Your task to perform on an android device: check data usage Image 0: 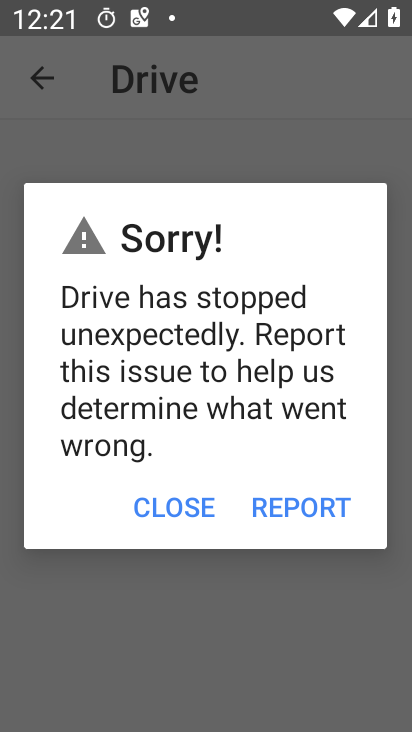
Step 0: press home button
Your task to perform on an android device: check data usage Image 1: 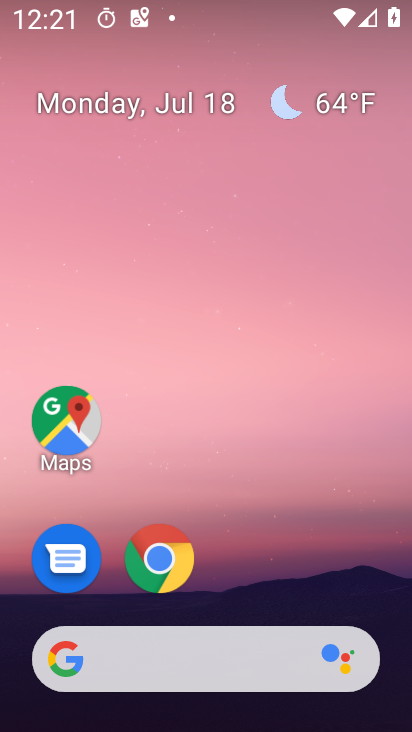
Step 1: drag from (334, 578) to (368, 64)
Your task to perform on an android device: check data usage Image 2: 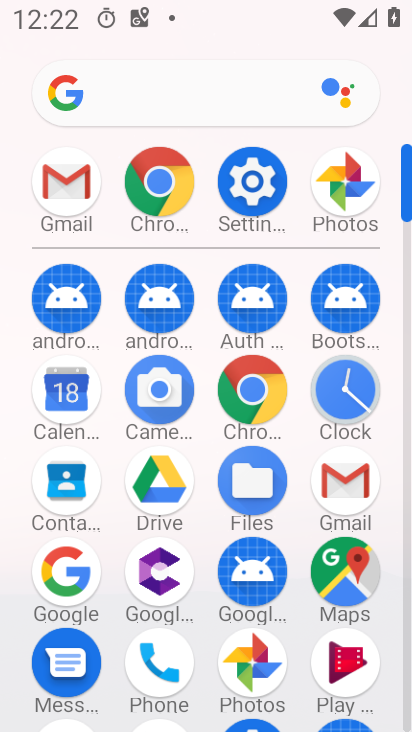
Step 2: click (236, 214)
Your task to perform on an android device: check data usage Image 3: 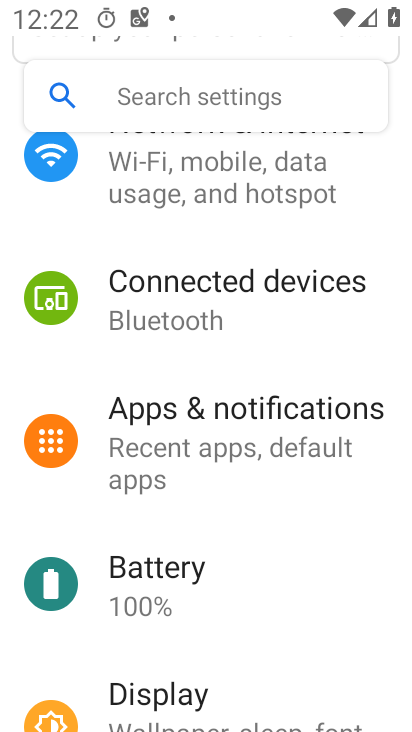
Step 3: drag from (359, 592) to (357, 491)
Your task to perform on an android device: check data usage Image 4: 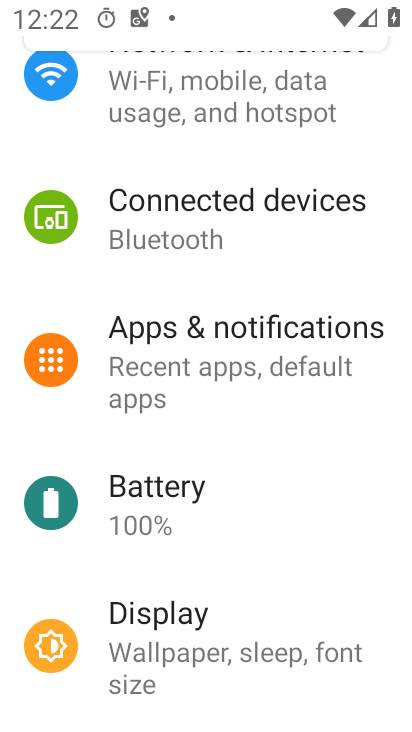
Step 4: drag from (348, 551) to (348, 458)
Your task to perform on an android device: check data usage Image 5: 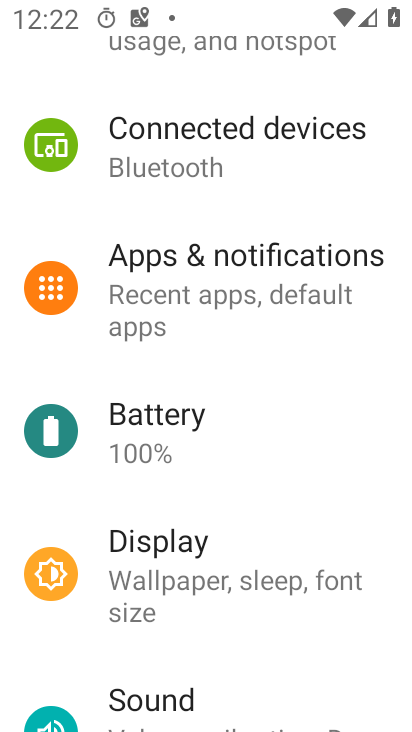
Step 5: drag from (345, 633) to (357, 438)
Your task to perform on an android device: check data usage Image 6: 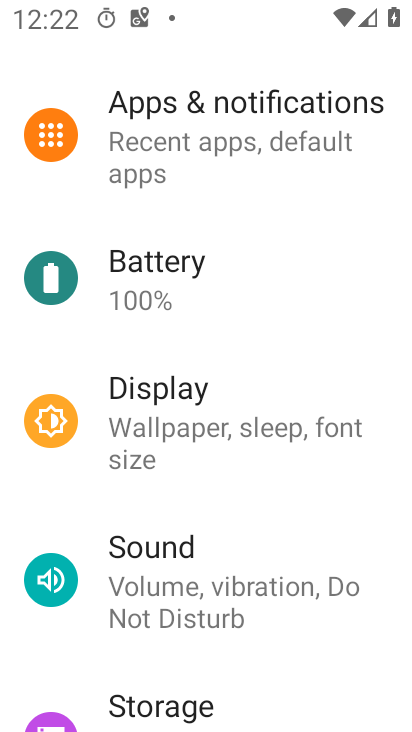
Step 6: drag from (336, 503) to (342, 364)
Your task to perform on an android device: check data usage Image 7: 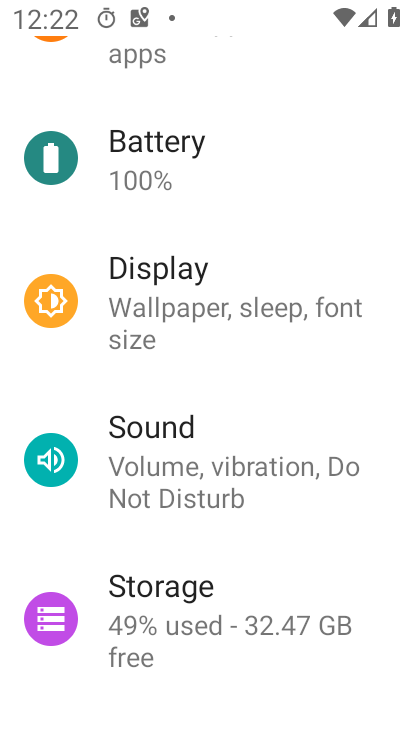
Step 7: drag from (345, 526) to (338, 257)
Your task to perform on an android device: check data usage Image 8: 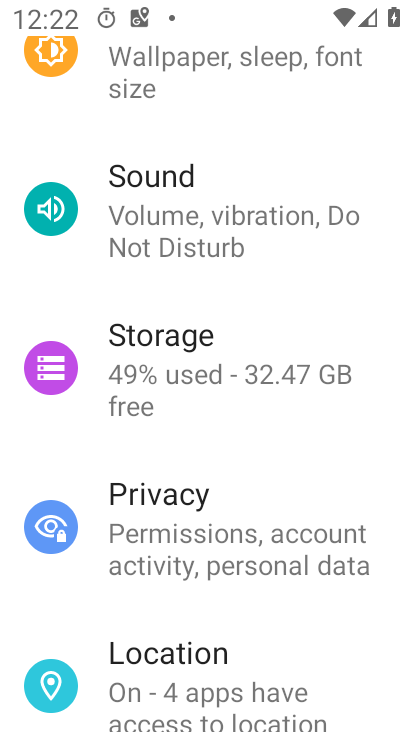
Step 8: drag from (346, 288) to (360, 450)
Your task to perform on an android device: check data usage Image 9: 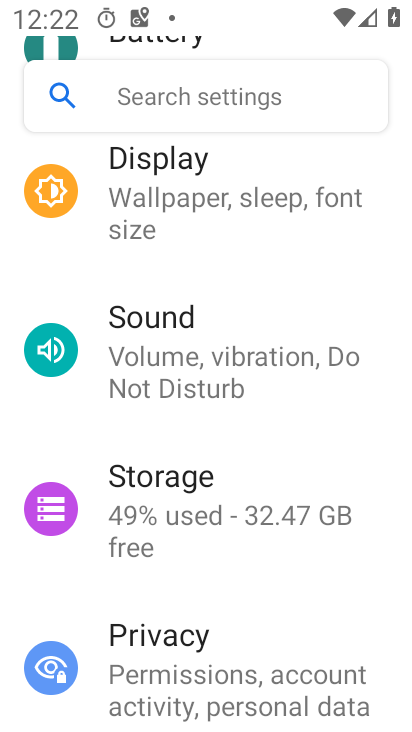
Step 9: drag from (361, 265) to (370, 380)
Your task to perform on an android device: check data usage Image 10: 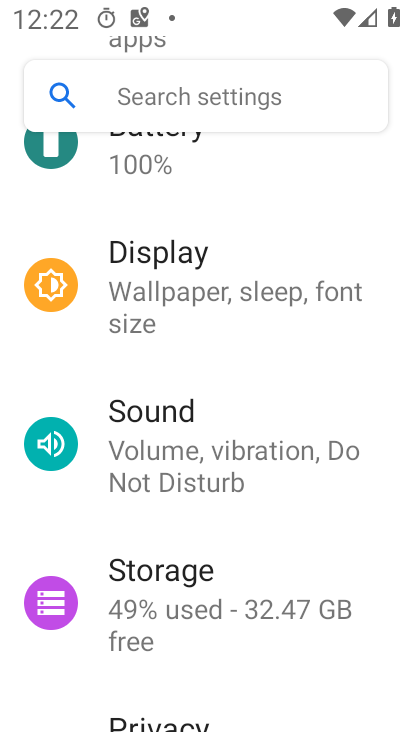
Step 10: drag from (366, 160) to (373, 333)
Your task to perform on an android device: check data usage Image 11: 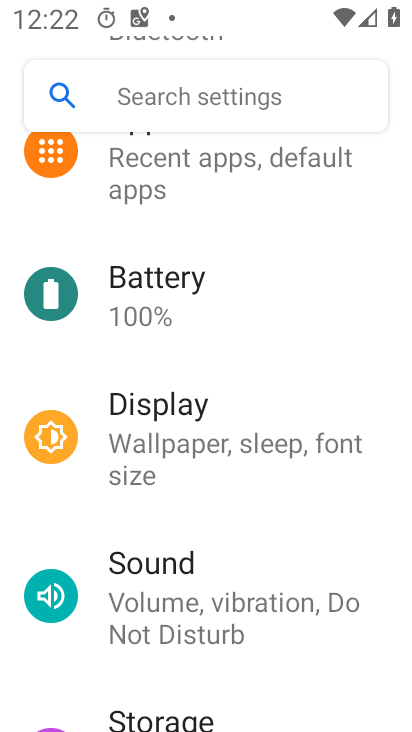
Step 11: drag from (374, 222) to (370, 392)
Your task to perform on an android device: check data usage Image 12: 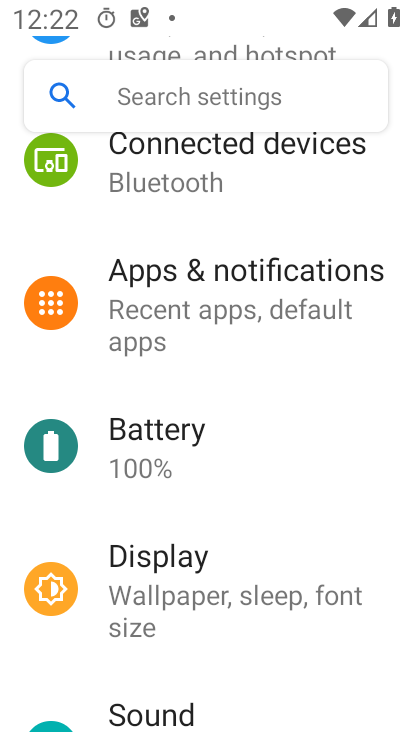
Step 12: drag from (365, 203) to (374, 389)
Your task to perform on an android device: check data usage Image 13: 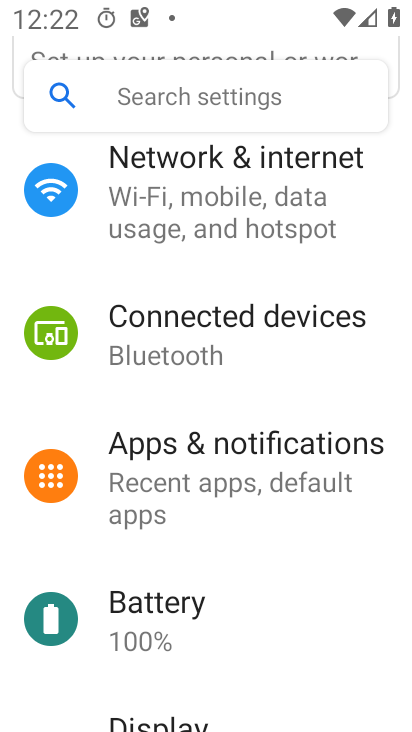
Step 13: drag from (364, 253) to (365, 419)
Your task to perform on an android device: check data usage Image 14: 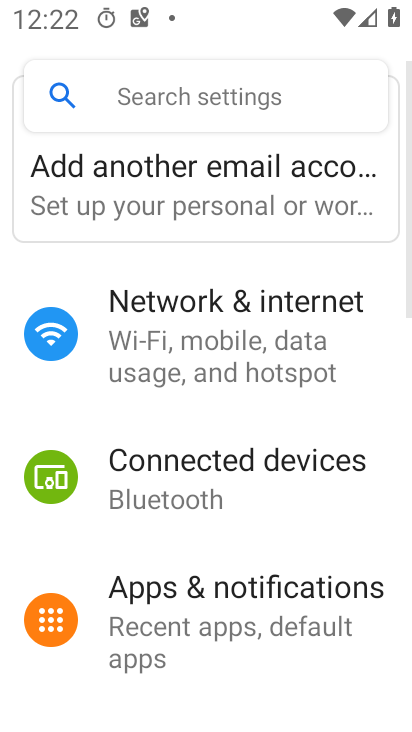
Step 14: click (321, 327)
Your task to perform on an android device: check data usage Image 15: 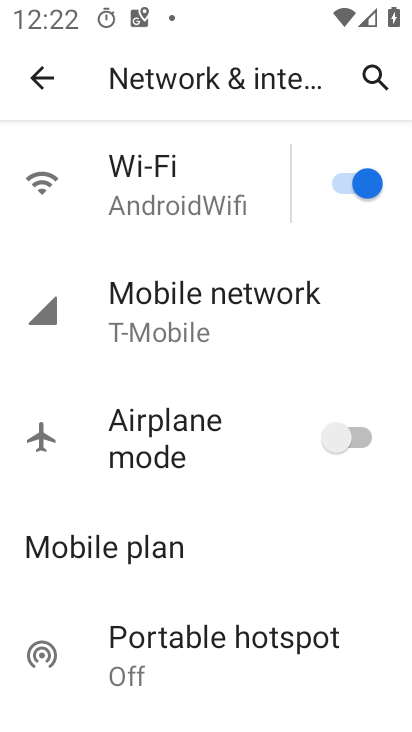
Step 15: click (208, 306)
Your task to perform on an android device: check data usage Image 16: 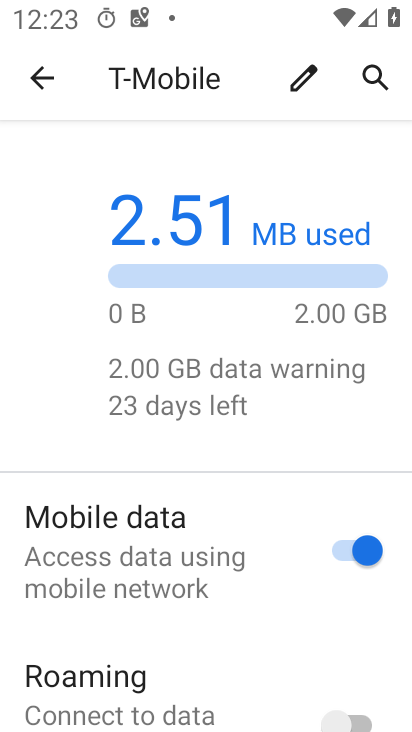
Step 16: drag from (291, 633) to (300, 471)
Your task to perform on an android device: check data usage Image 17: 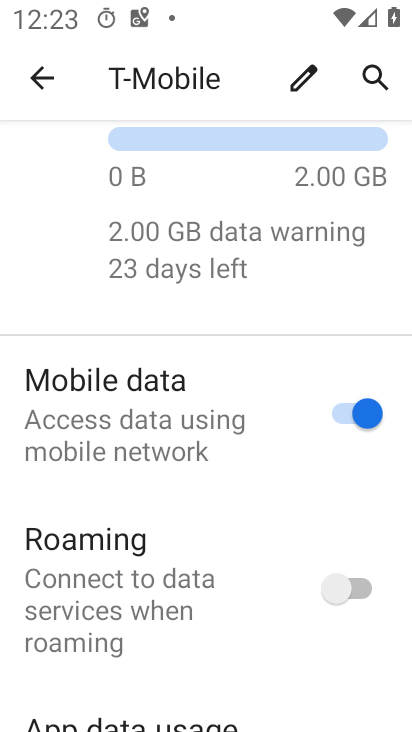
Step 17: drag from (287, 574) to (337, 279)
Your task to perform on an android device: check data usage Image 18: 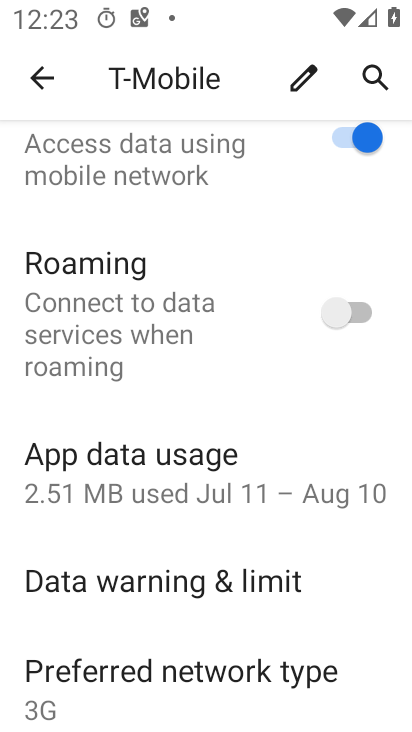
Step 18: drag from (305, 504) to (312, 333)
Your task to perform on an android device: check data usage Image 19: 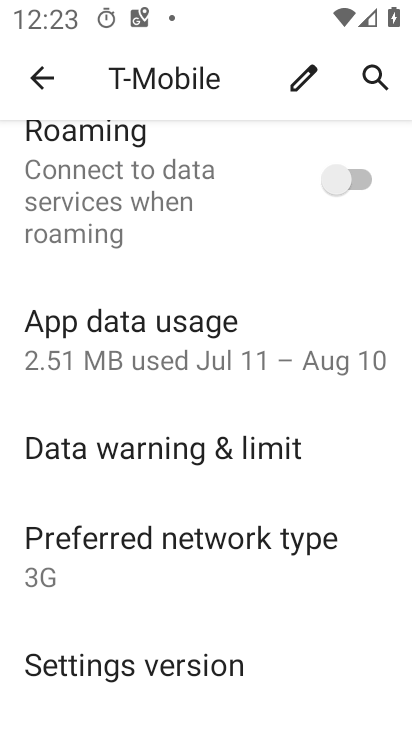
Step 19: click (156, 340)
Your task to perform on an android device: check data usage Image 20: 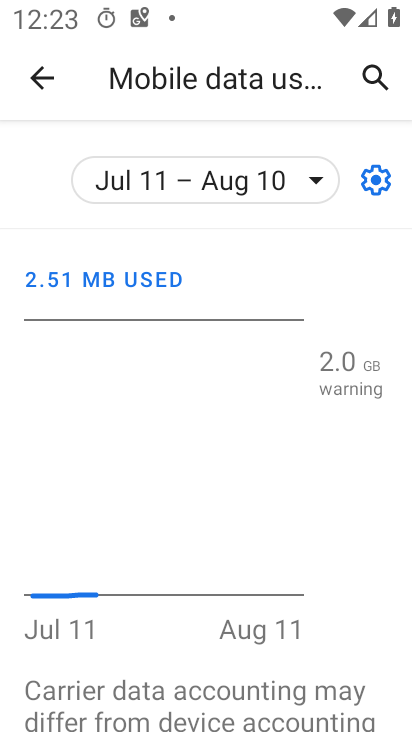
Step 20: task complete